Your task to perform on an android device: open a new tab in the chrome app Image 0: 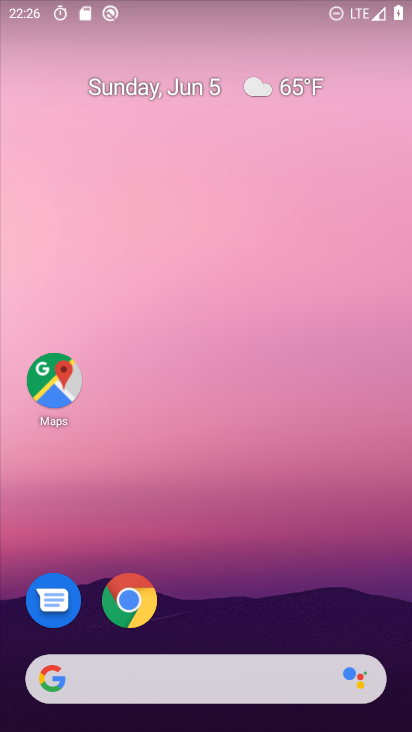
Step 0: click (130, 599)
Your task to perform on an android device: open a new tab in the chrome app Image 1: 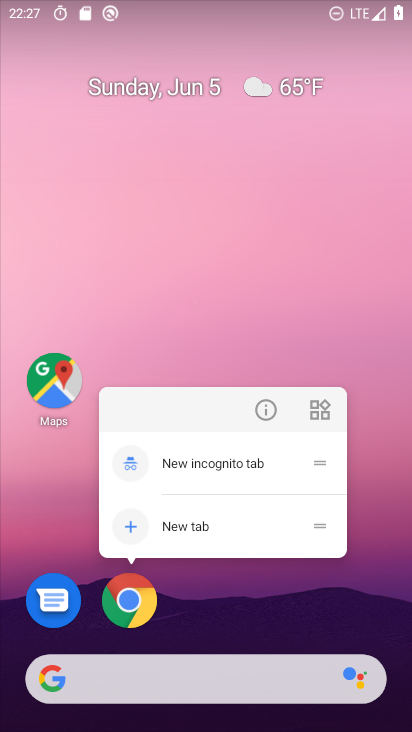
Step 1: click (130, 599)
Your task to perform on an android device: open a new tab in the chrome app Image 2: 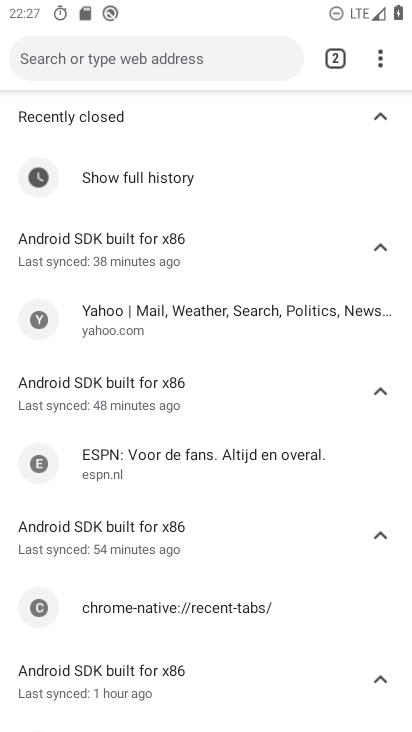
Step 2: task complete